Your task to perform on an android device: Open settings on Google Maps Image 0: 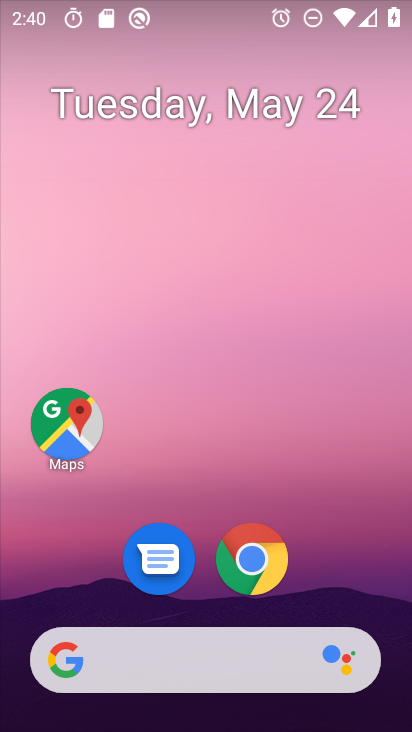
Step 0: click (70, 403)
Your task to perform on an android device: Open settings on Google Maps Image 1: 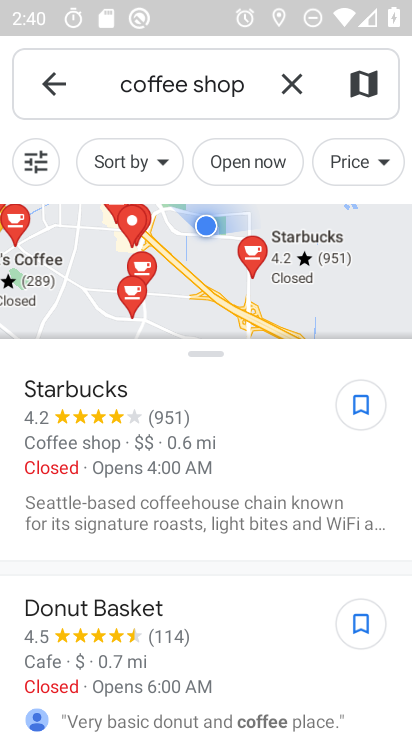
Step 1: click (53, 80)
Your task to perform on an android device: Open settings on Google Maps Image 2: 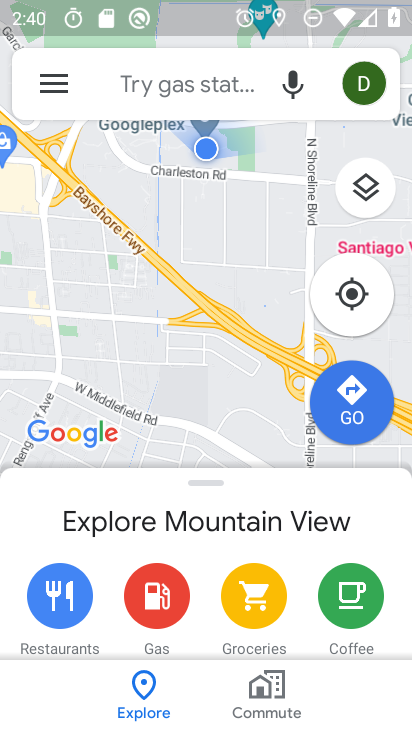
Step 2: press back button
Your task to perform on an android device: Open settings on Google Maps Image 3: 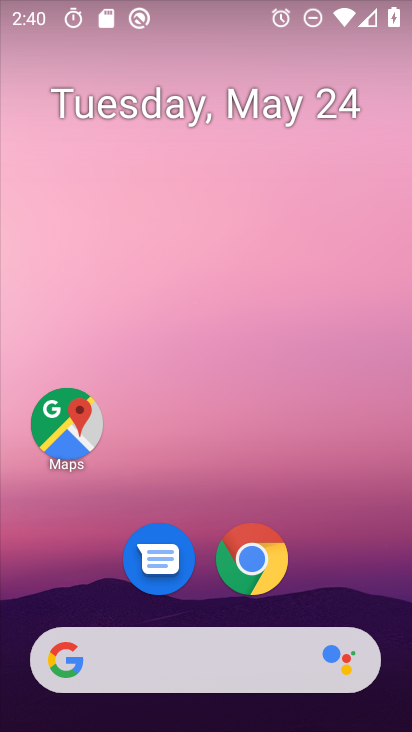
Step 3: click (87, 424)
Your task to perform on an android device: Open settings on Google Maps Image 4: 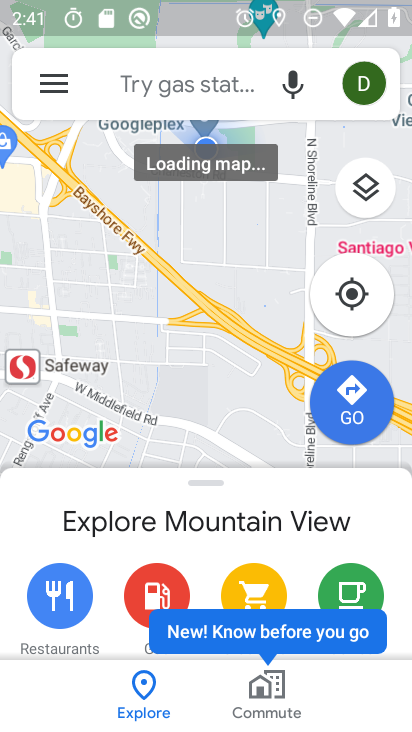
Step 4: task complete